Your task to perform on an android device: Show me the alarms in the clock app Image 0: 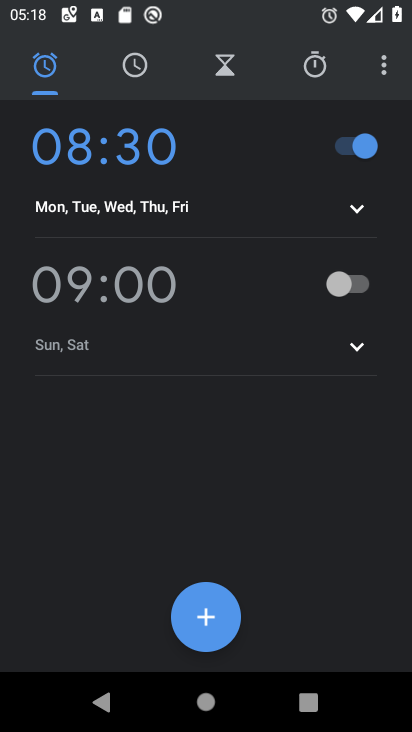
Step 0: press home button
Your task to perform on an android device: Show me the alarms in the clock app Image 1: 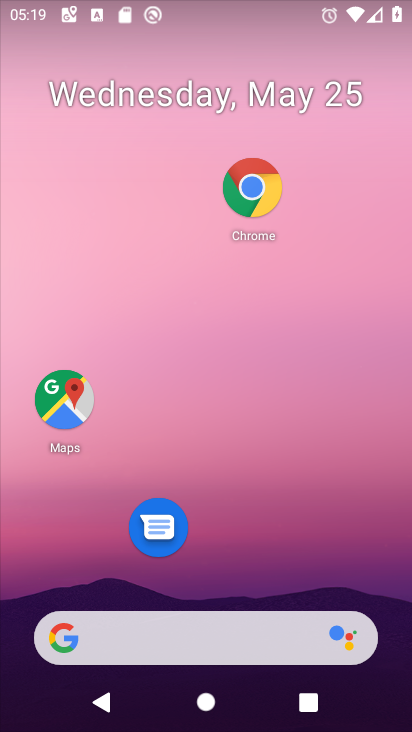
Step 1: drag from (282, 585) to (323, 69)
Your task to perform on an android device: Show me the alarms in the clock app Image 2: 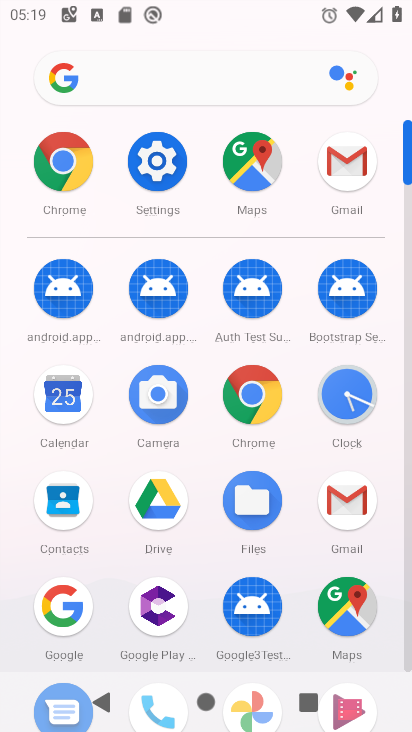
Step 2: click (362, 402)
Your task to perform on an android device: Show me the alarms in the clock app Image 3: 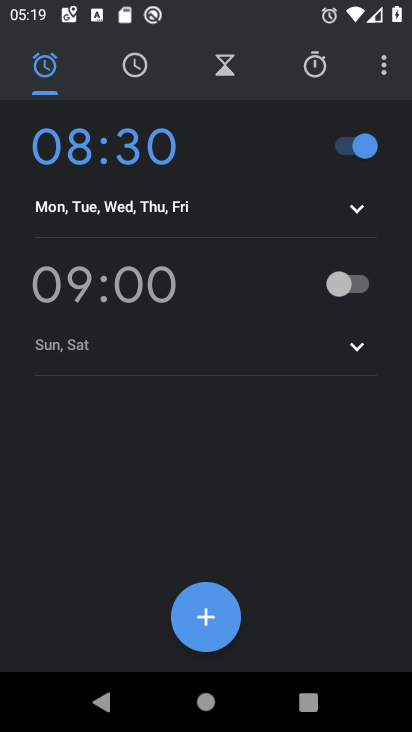
Step 3: click (129, 67)
Your task to perform on an android device: Show me the alarms in the clock app Image 4: 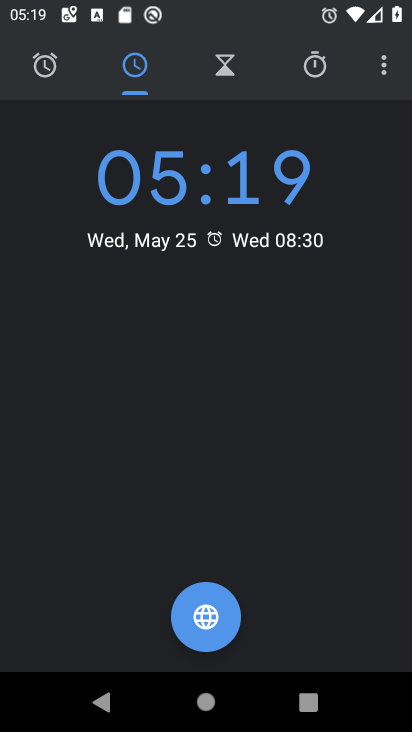
Step 4: click (57, 66)
Your task to perform on an android device: Show me the alarms in the clock app Image 5: 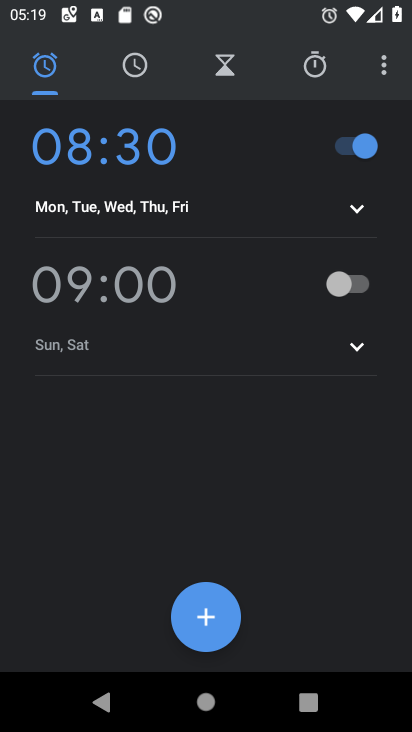
Step 5: task complete